Your task to perform on an android device: Go to Android settings Image 0: 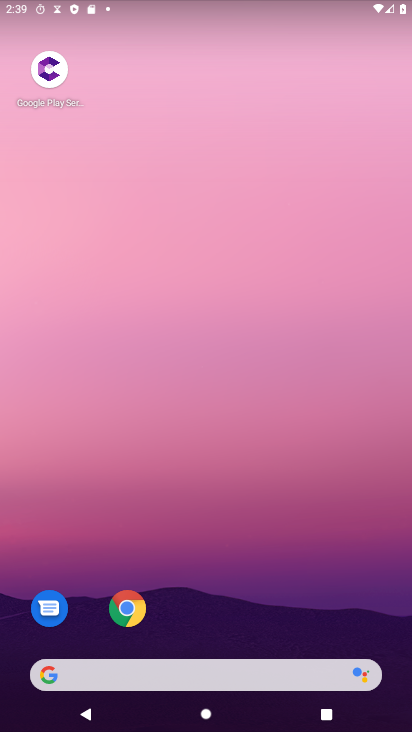
Step 0: drag from (307, 587) to (320, 5)
Your task to perform on an android device: Go to Android settings Image 1: 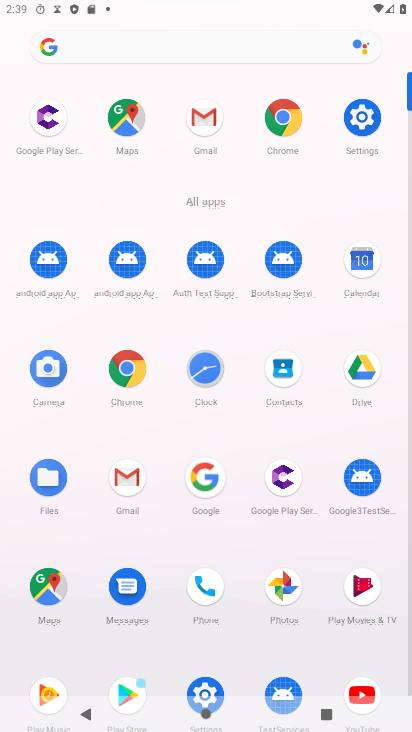
Step 1: click (366, 123)
Your task to perform on an android device: Go to Android settings Image 2: 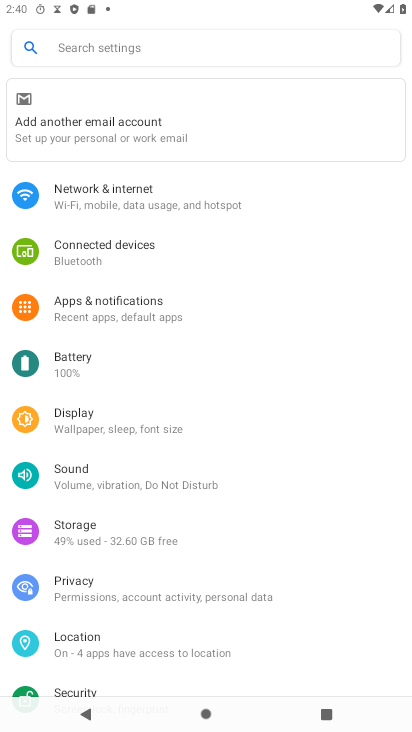
Step 2: task complete